Your task to perform on an android device: see tabs open on other devices in the chrome app Image 0: 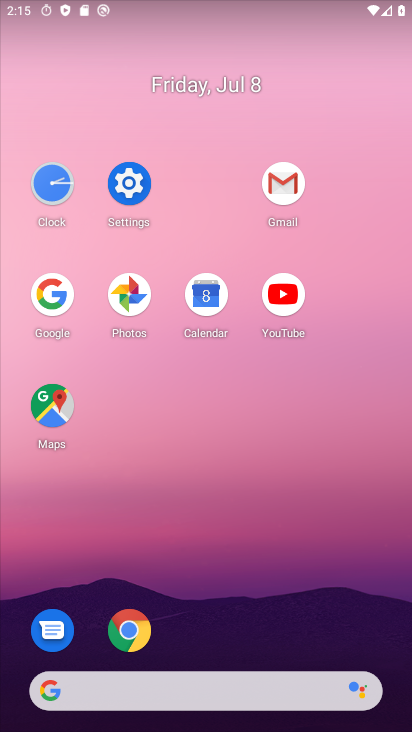
Step 0: click (133, 633)
Your task to perform on an android device: see tabs open on other devices in the chrome app Image 1: 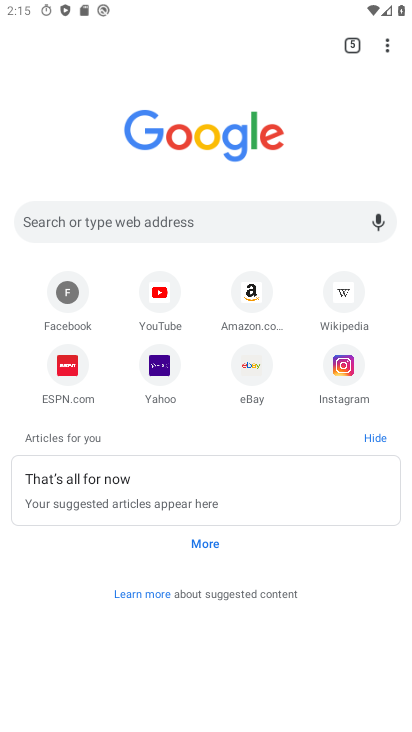
Step 1: click (389, 46)
Your task to perform on an android device: see tabs open on other devices in the chrome app Image 2: 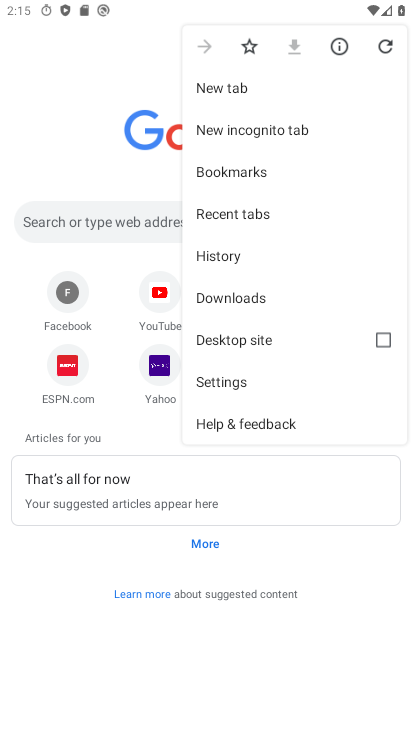
Step 2: click (264, 211)
Your task to perform on an android device: see tabs open on other devices in the chrome app Image 3: 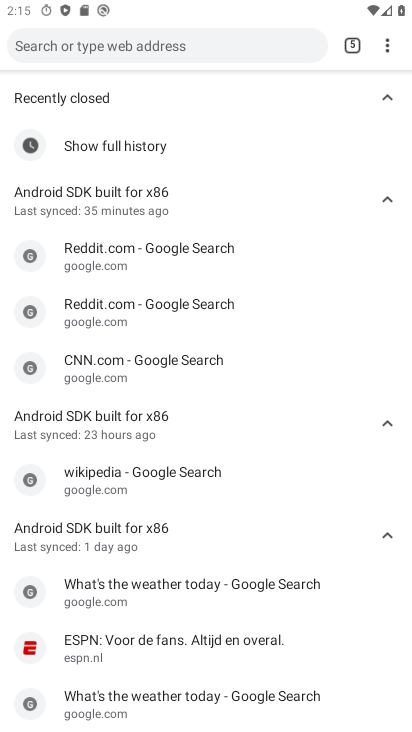
Step 3: task complete